Your task to perform on an android device: Show me productivity apps on the Play Store Image 0: 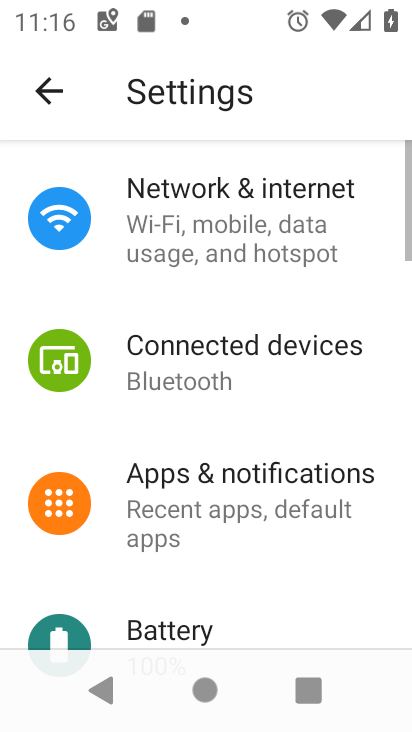
Step 0: press home button
Your task to perform on an android device: Show me productivity apps on the Play Store Image 1: 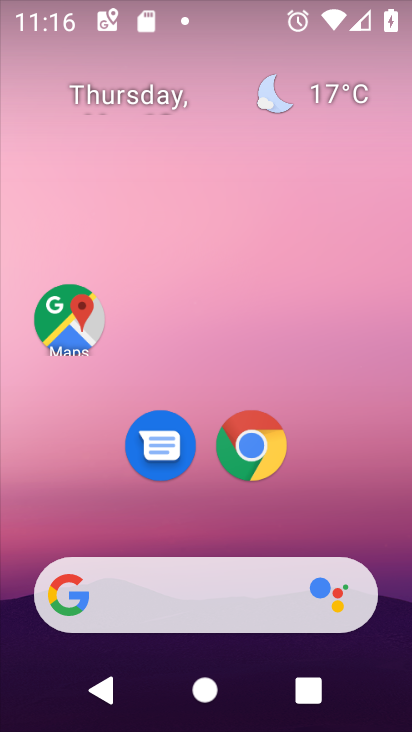
Step 1: click (232, 562)
Your task to perform on an android device: Show me productivity apps on the Play Store Image 2: 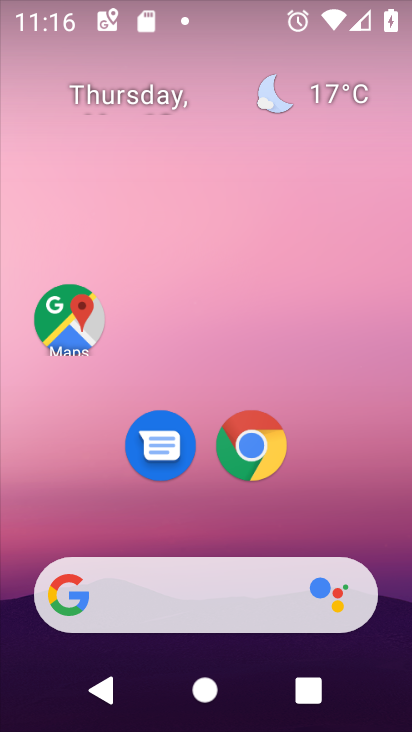
Step 2: drag from (214, 525) to (193, 157)
Your task to perform on an android device: Show me productivity apps on the Play Store Image 3: 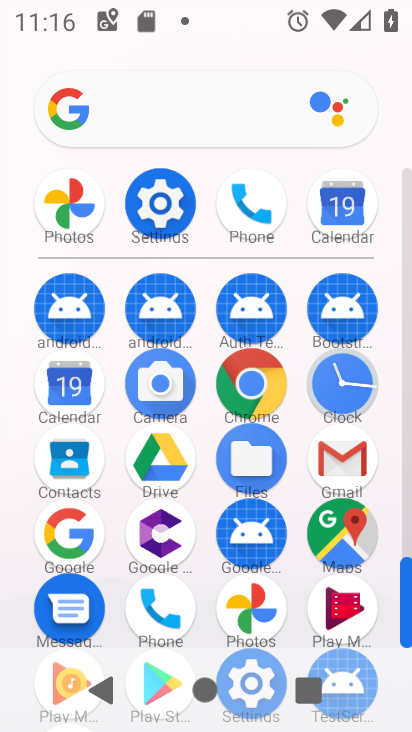
Step 3: drag from (116, 263) to (116, 93)
Your task to perform on an android device: Show me productivity apps on the Play Store Image 4: 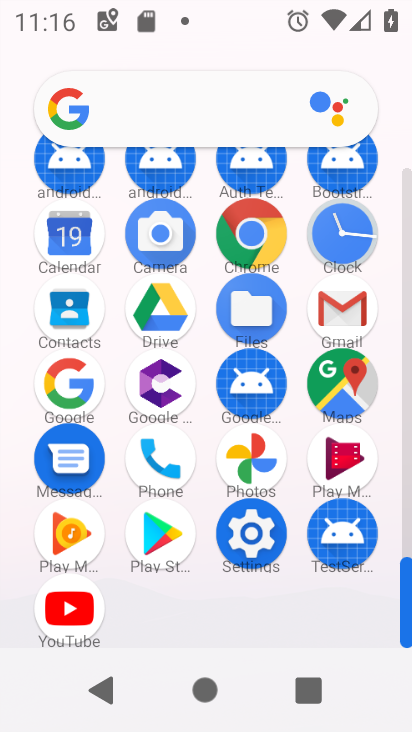
Step 4: click (175, 545)
Your task to perform on an android device: Show me productivity apps on the Play Store Image 5: 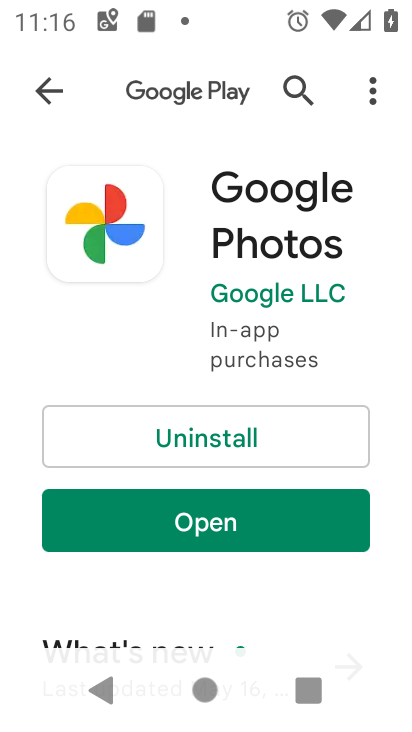
Step 5: click (38, 92)
Your task to perform on an android device: Show me productivity apps on the Play Store Image 6: 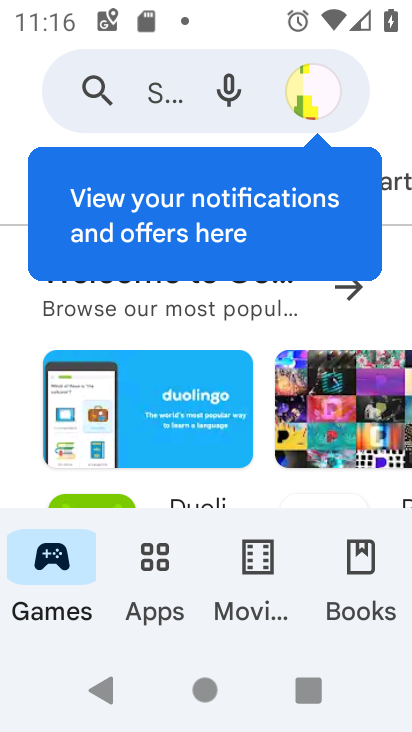
Step 6: drag from (258, 533) to (271, 120)
Your task to perform on an android device: Show me productivity apps on the Play Store Image 7: 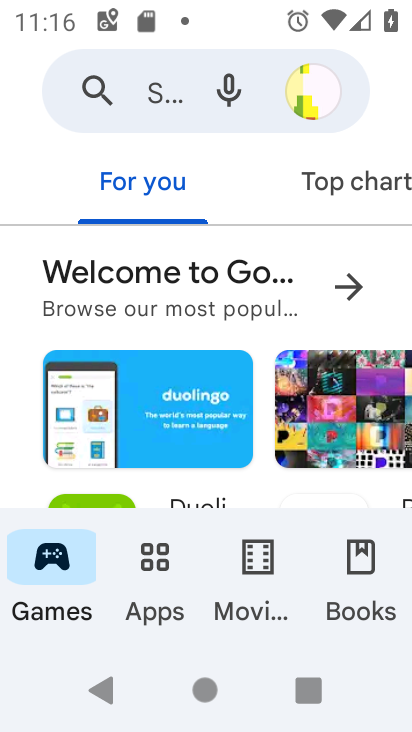
Step 7: drag from (224, 400) to (224, 18)
Your task to perform on an android device: Show me productivity apps on the Play Store Image 8: 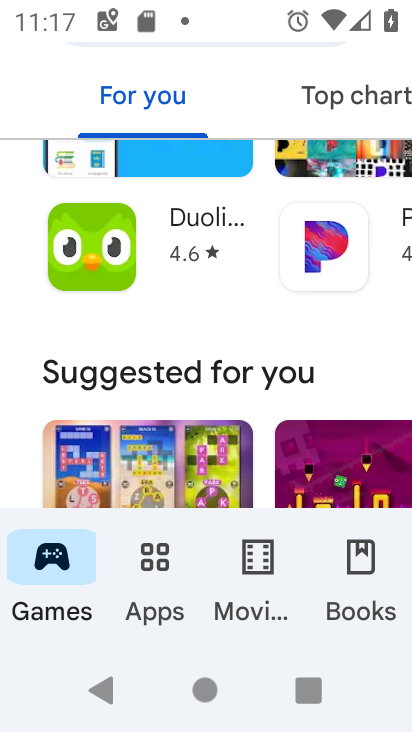
Step 8: drag from (191, 443) to (298, 9)
Your task to perform on an android device: Show me productivity apps on the Play Store Image 9: 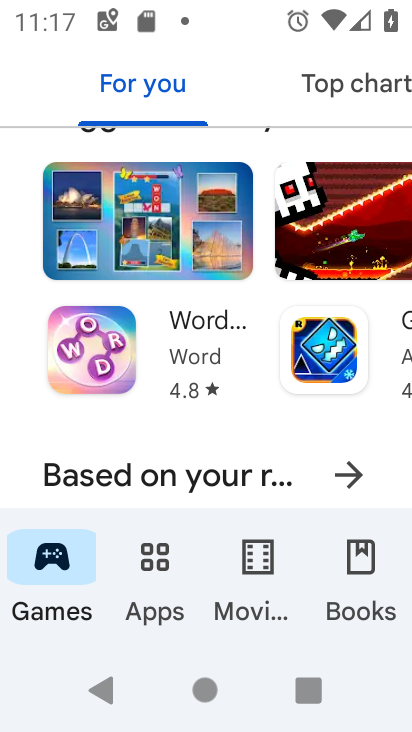
Step 9: drag from (212, 496) to (257, 0)
Your task to perform on an android device: Show me productivity apps on the Play Store Image 10: 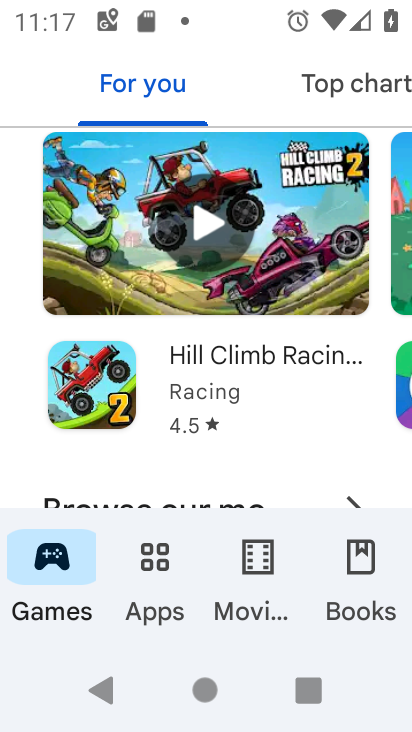
Step 10: drag from (273, 526) to (279, 10)
Your task to perform on an android device: Show me productivity apps on the Play Store Image 11: 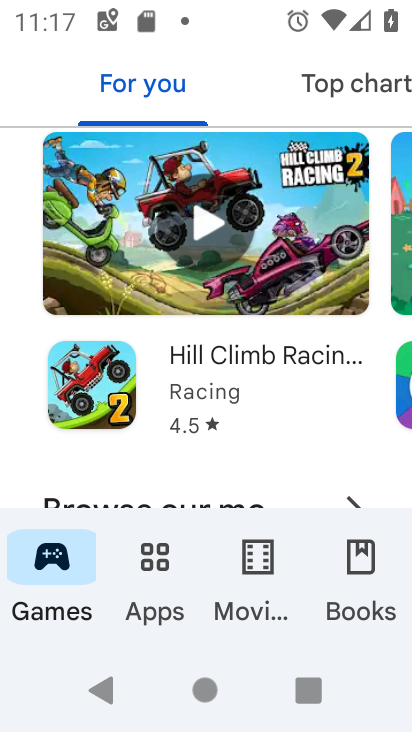
Step 11: drag from (252, 469) to (267, 88)
Your task to perform on an android device: Show me productivity apps on the Play Store Image 12: 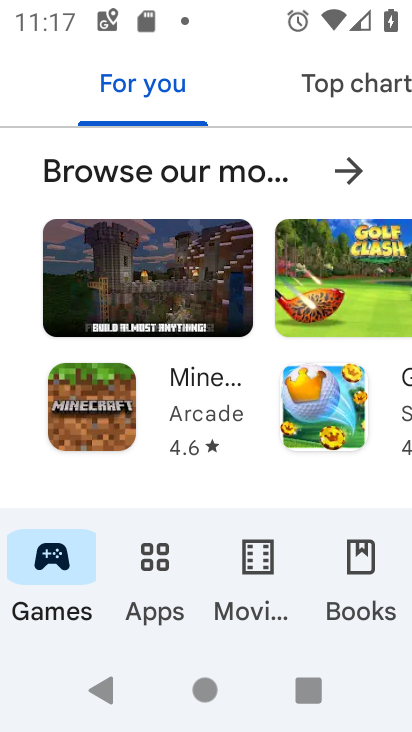
Step 12: drag from (224, 493) to (247, 0)
Your task to perform on an android device: Show me productivity apps on the Play Store Image 13: 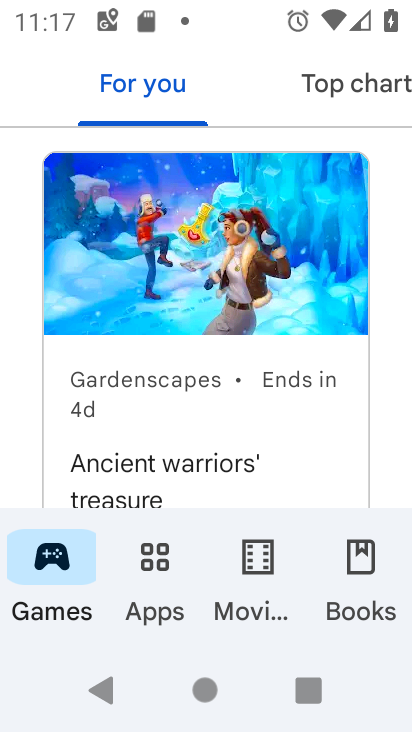
Step 13: drag from (269, 407) to (279, 41)
Your task to perform on an android device: Show me productivity apps on the Play Store Image 14: 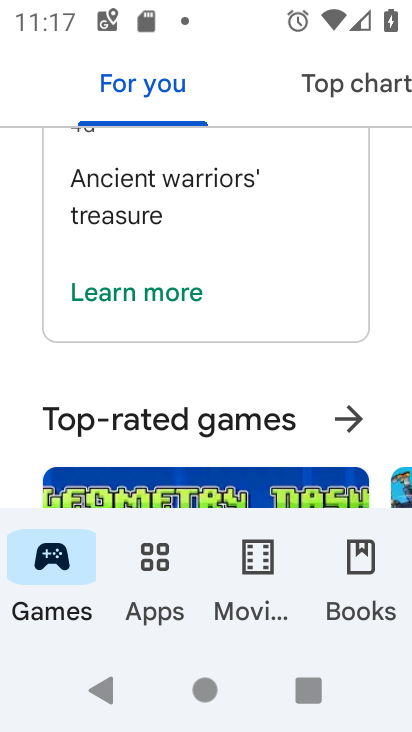
Step 14: drag from (285, 435) to (277, 113)
Your task to perform on an android device: Show me productivity apps on the Play Store Image 15: 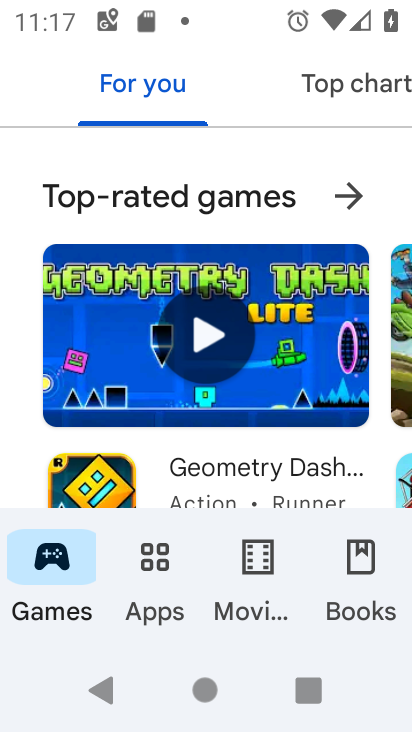
Step 15: drag from (238, 387) to (256, 25)
Your task to perform on an android device: Show me productivity apps on the Play Store Image 16: 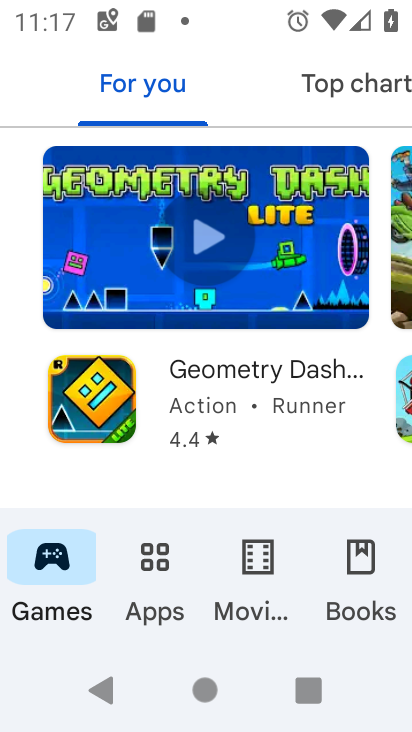
Step 16: drag from (280, 480) to (250, 138)
Your task to perform on an android device: Show me productivity apps on the Play Store Image 17: 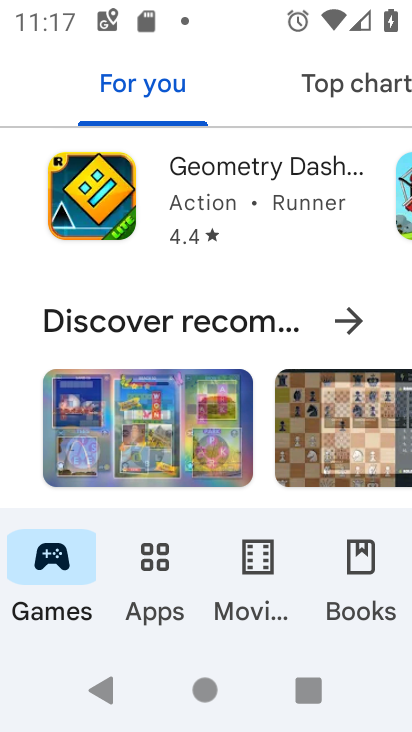
Step 17: drag from (274, 434) to (289, 75)
Your task to perform on an android device: Show me productivity apps on the Play Store Image 18: 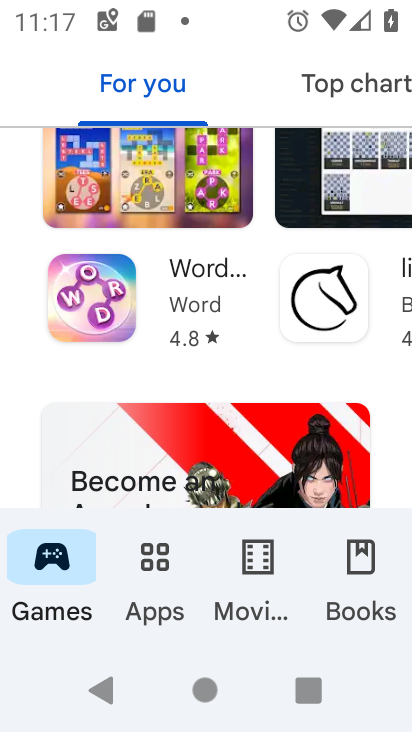
Step 18: drag from (278, 448) to (282, 97)
Your task to perform on an android device: Show me productivity apps on the Play Store Image 19: 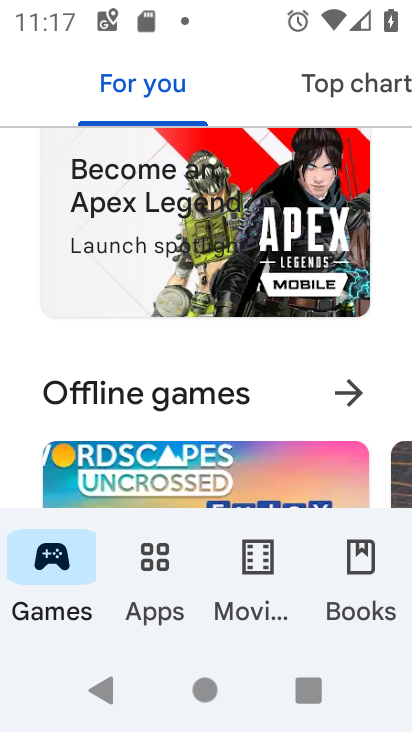
Step 19: drag from (311, 442) to (311, 145)
Your task to perform on an android device: Show me productivity apps on the Play Store Image 20: 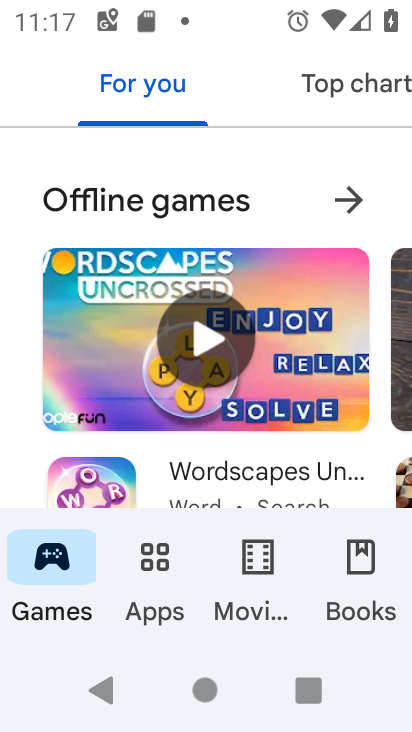
Step 20: drag from (264, 550) to (275, 5)
Your task to perform on an android device: Show me productivity apps on the Play Store Image 21: 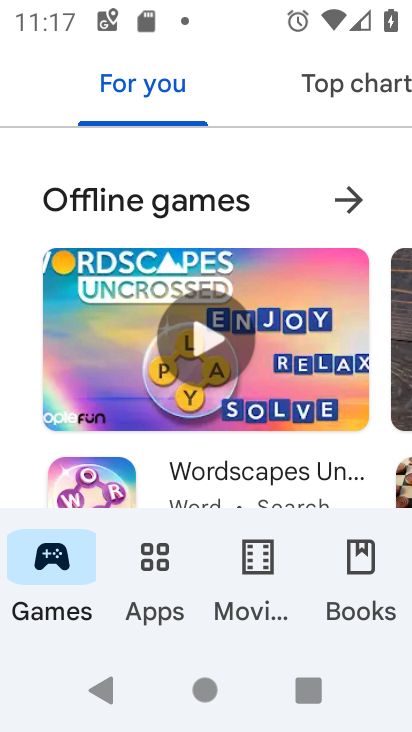
Step 21: click (172, 588)
Your task to perform on an android device: Show me productivity apps on the Play Store Image 22: 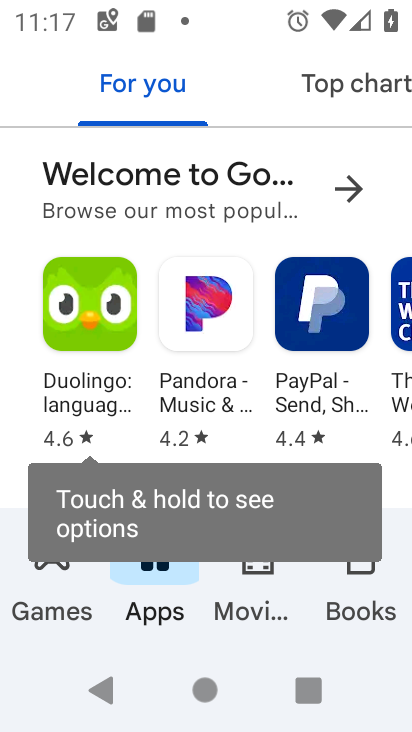
Step 22: task complete